Your task to perform on an android device: Go to Android settings Image 0: 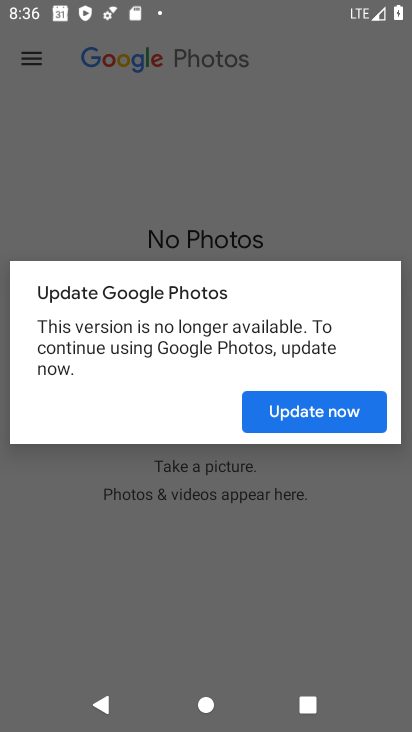
Step 0: press home button
Your task to perform on an android device: Go to Android settings Image 1: 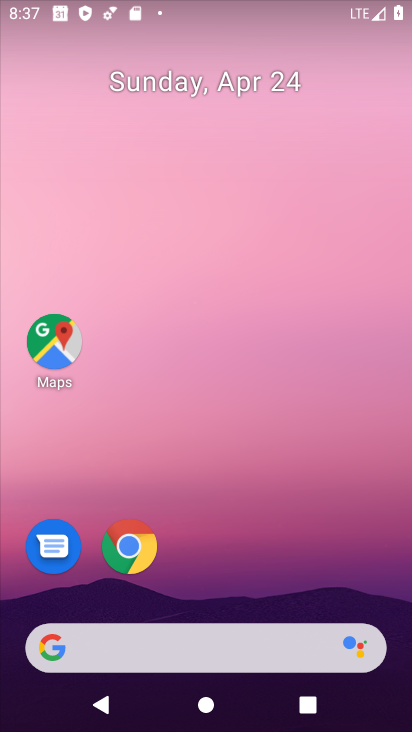
Step 1: drag from (234, 536) to (177, 125)
Your task to perform on an android device: Go to Android settings Image 2: 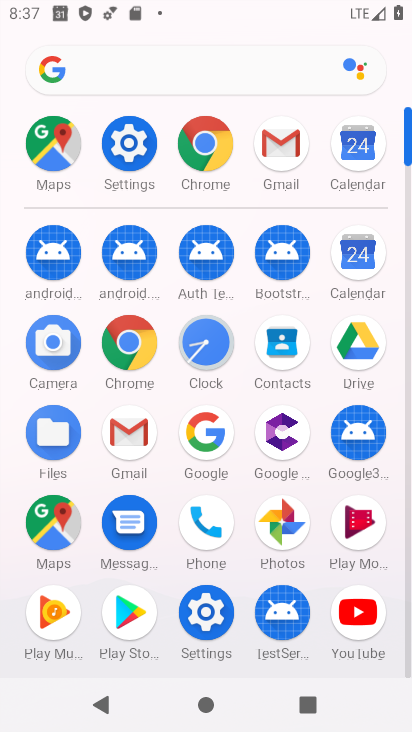
Step 2: click (146, 149)
Your task to perform on an android device: Go to Android settings Image 3: 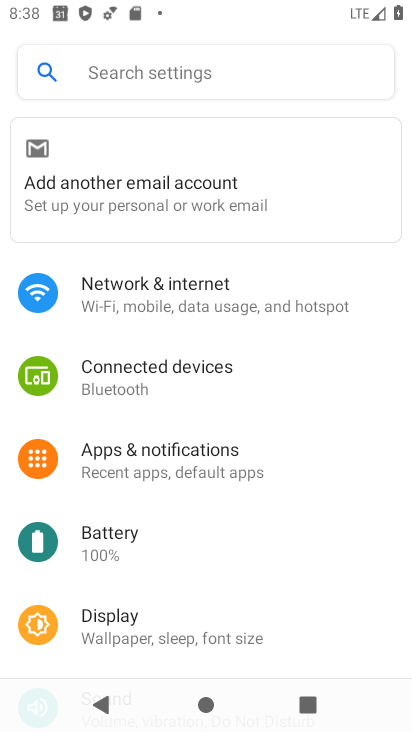
Step 3: drag from (280, 689) to (216, 232)
Your task to perform on an android device: Go to Android settings Image 4: 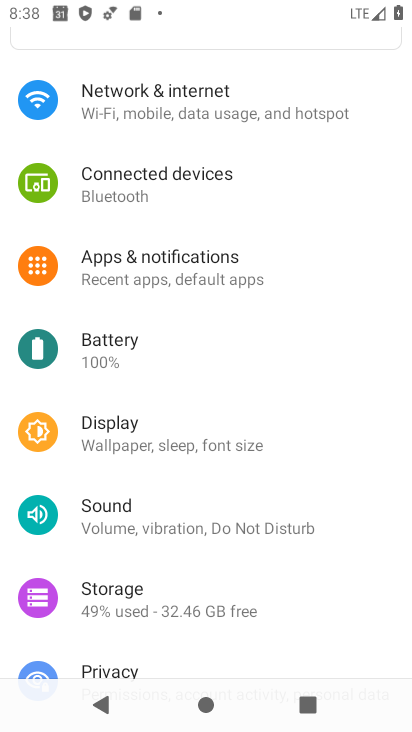
Step 4: drag from (191, 604) to (186, 293)
Your task to perform on an android device: Go to Android settings Image 5: 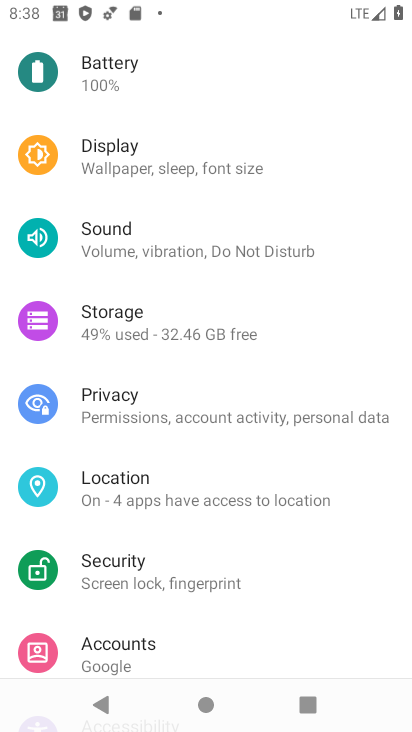
Step 5: drag from (156, 547) to (158, 41)
Your task to perform on an android device: Go to Android settings Image 6: 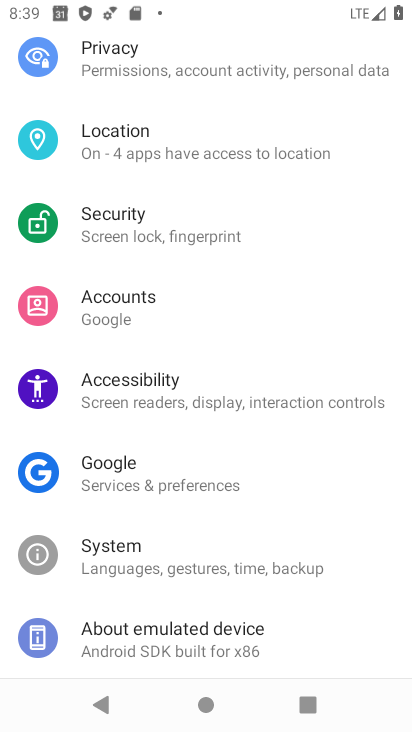
Step 6: drag from (230, 406) to (237, 195)
Your task to perform on an android device: Go to Android settings Image 7: 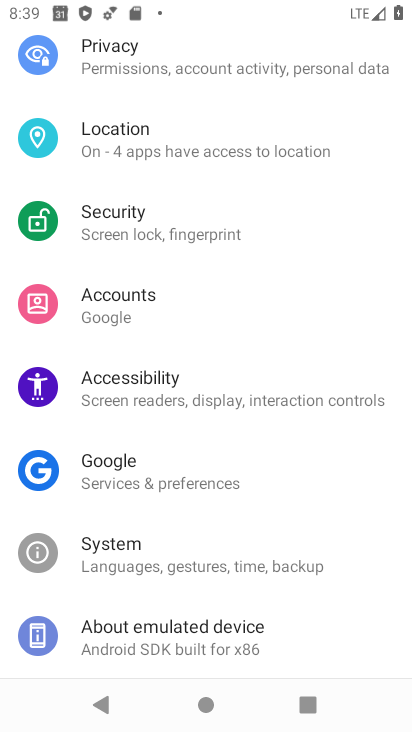
Step 7: click (201, 615)
Your task to perform on an android device: Go to Android settings Image 8: 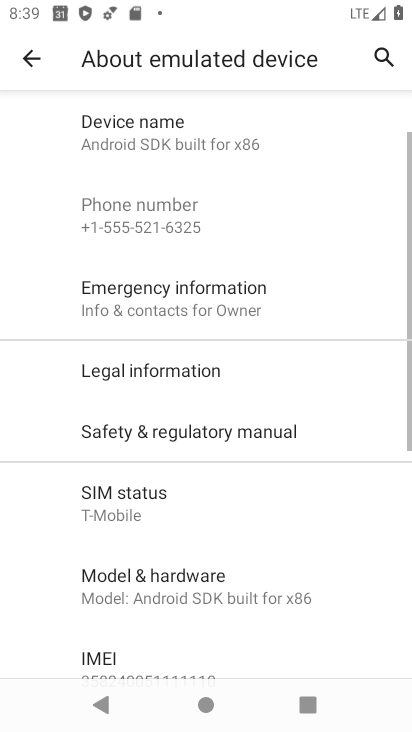
Step 8: task complete